Your task to perform on an android device: Open accessibility settings Image 0: 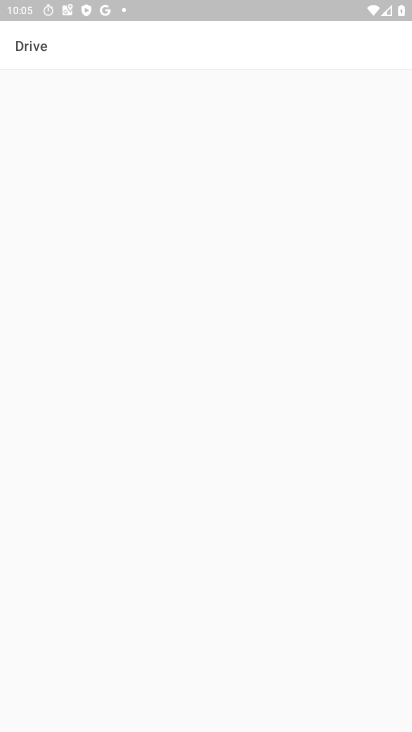
Step 0: press home button
Your task to perform on an android device: Open accessibility settings Image 1: 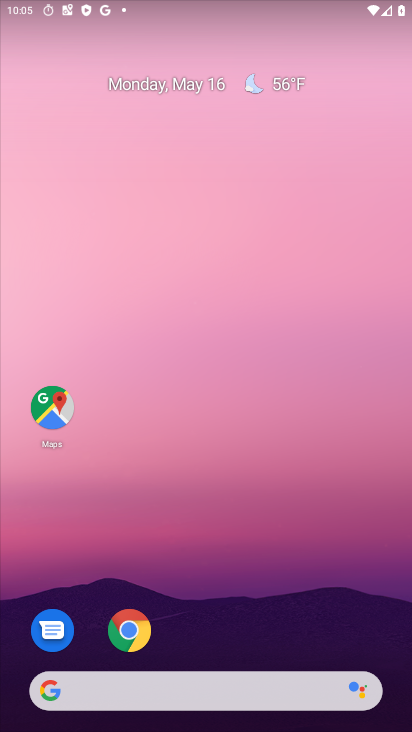
Step 1: drag from (178, 649) to (239, 47)
Your task to perform on an android device: Open accessibility settings Image 2: 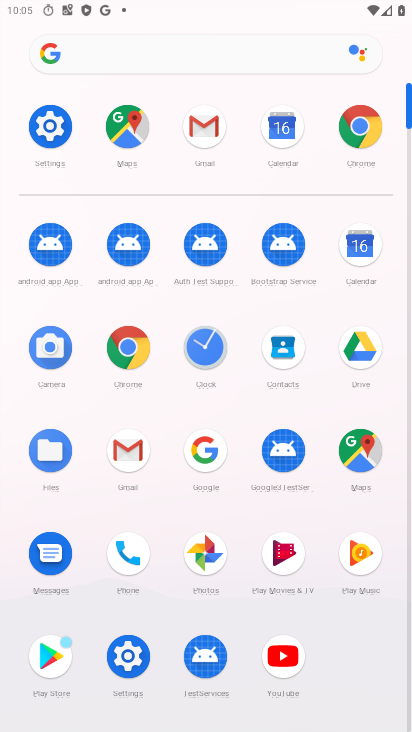
Step 2: click (60, 123)
Your task to perform on an android device: Open accessibility settings Image 3: 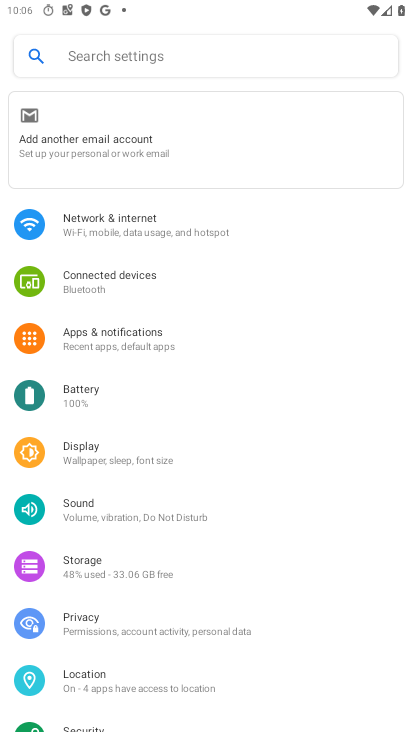
Step 3: drag from (107, 619) to (118, 370)
Your task to perform on an android device: Open accessibility settings Image 4: 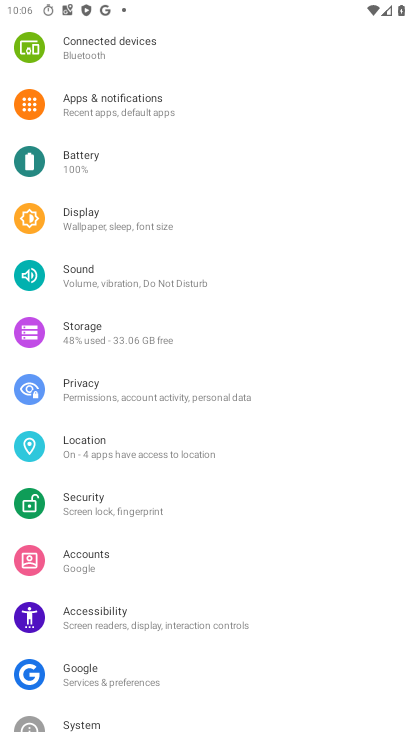
Step 4: click (111, 618)
Your task to perform on an android device: Open accessibility settings Image 5: 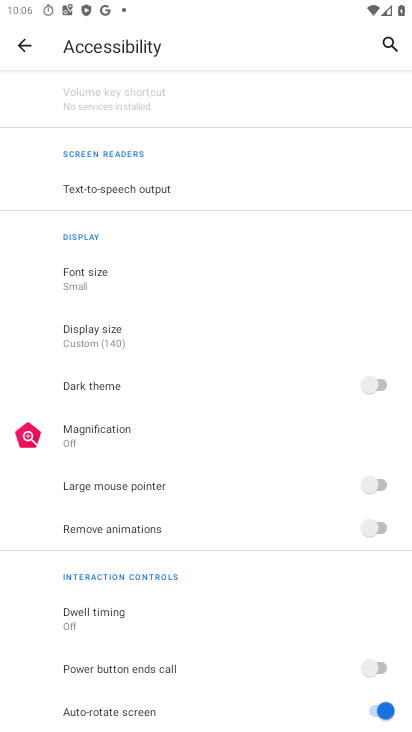
Step 5: task complete